Your task to perform on an android device: Open location settings Image 0: 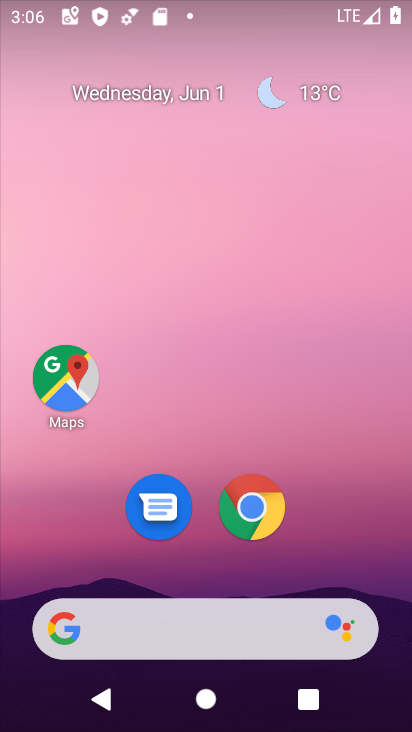
Step 0: drag from (317, 564) to (49, 92)
Your task to perform on an android device: Open location settings Image 1: 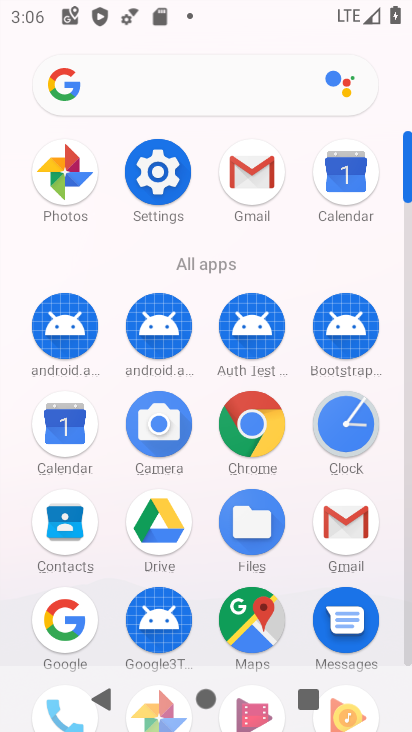
Step 1: click (173, 165)
Your task to perform on an android device: Open location settings Image 2: 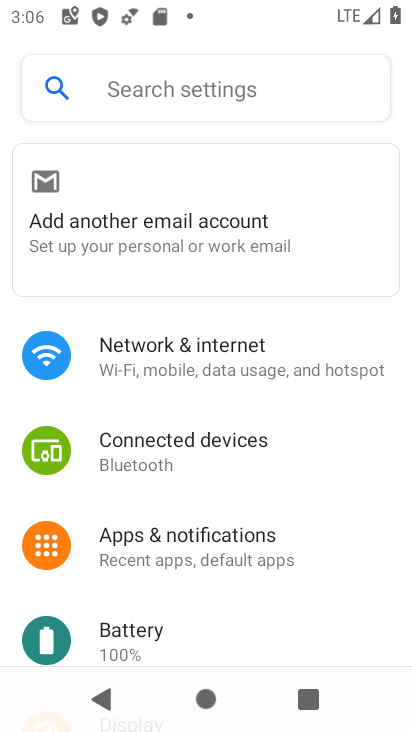
Step 2: drag from (154, 613) to (102, 150)
Your task to perform on an android device: Open location settings Image 3: 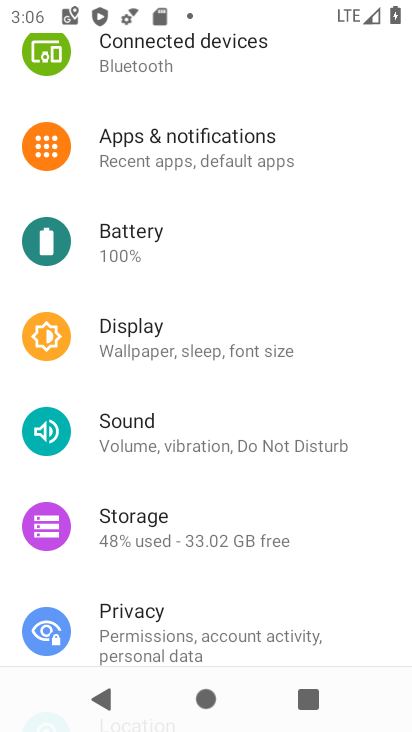
Step 3: drag from (231, 593) to (253, 215)
Your task to perform on an android device: Open location settings Image 4: 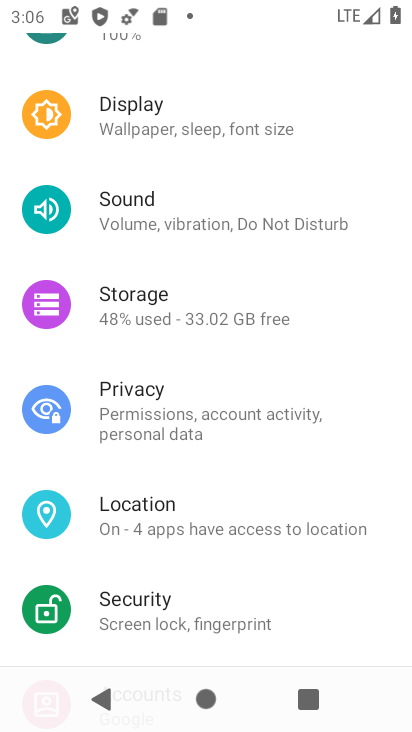
Step 4: click (114, 512)
Your task to perform on an android device: Open location settings Image 5: 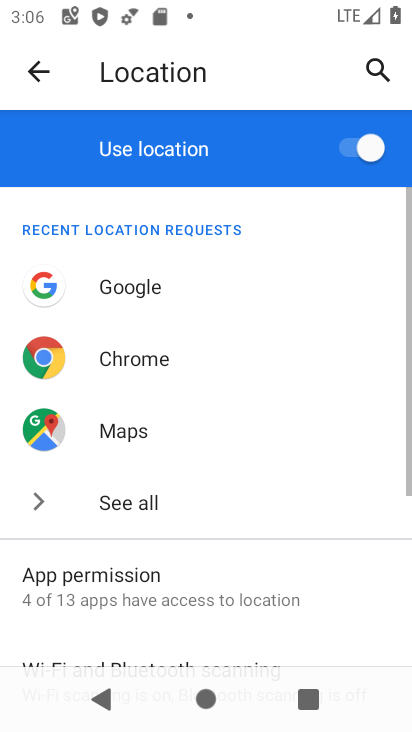
Step 5: task complete